Your task to perform on an android device: turn off smart reply in the gmail app Image 0: 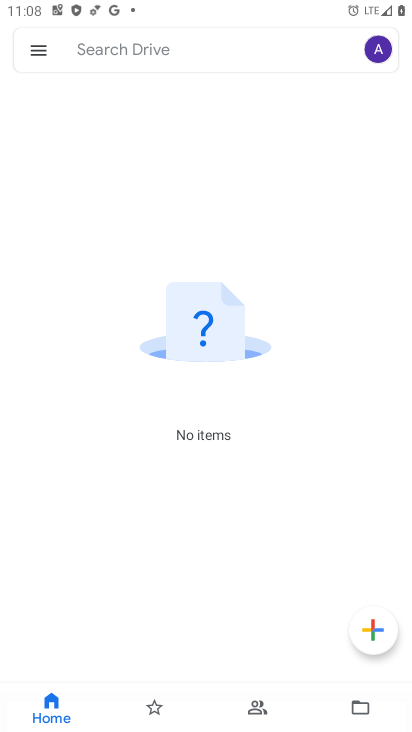
Step 0: press home button
Your task to perform on an android device: turn off smart reply in the gmail app Image 1: 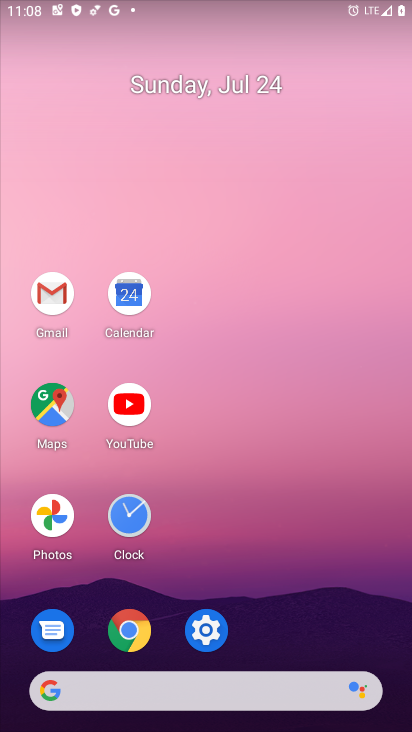
Step 1: click (54, 296)
Your task to perform on an android device: turn off smart reply in the gmail app Image 2: 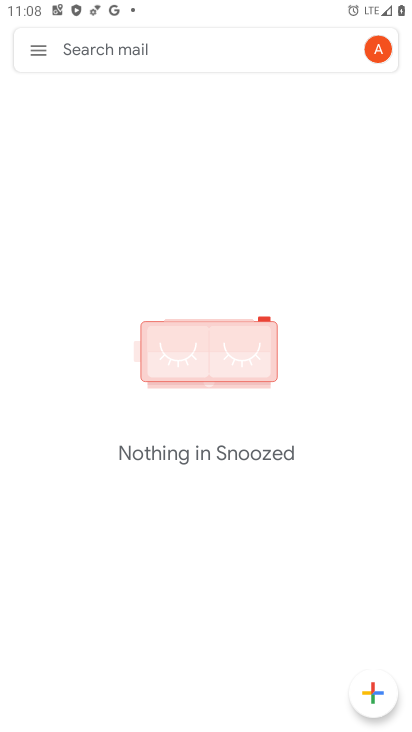
Step 2: click (30, 47)
Your task to perform on an android device: turn off smart reply in the gmail app Image 3: 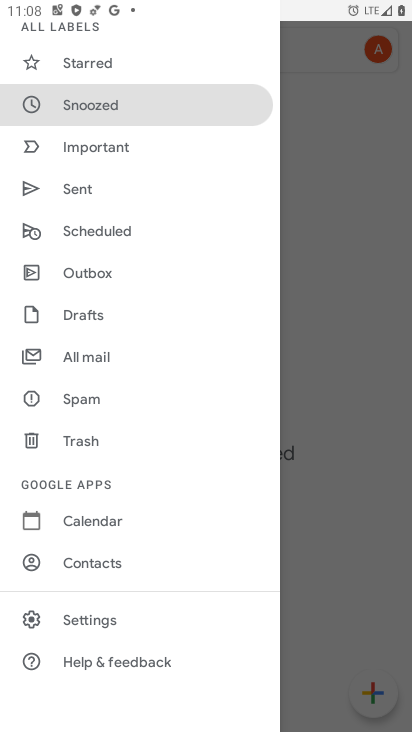
Step 3: click (102, 617)
Your task to perform on an android device: turn off smart reply in the gmail app Image 4: 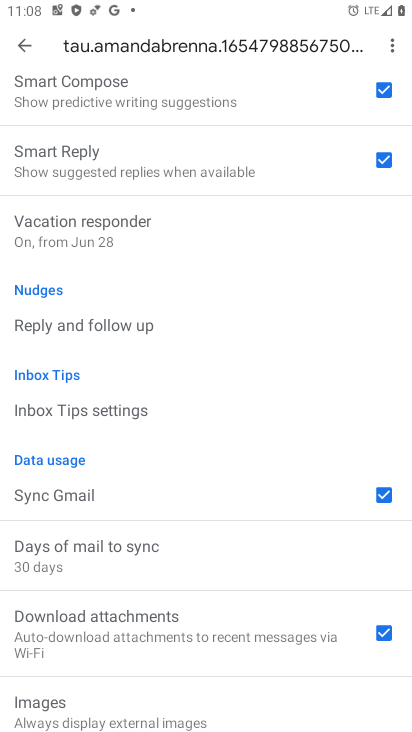
Step 4: click (385, 155)
Your task to perform on an android device: turn off smart reply in the gmail app Image 5: 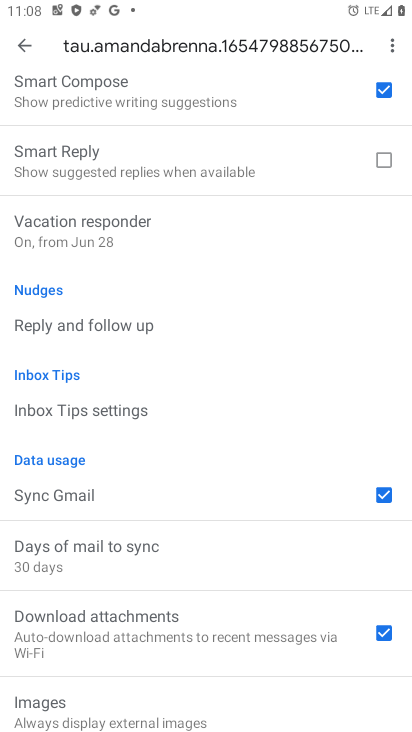
Step 5: task complete